Your task to perform on an android device: turn off location Image 0: 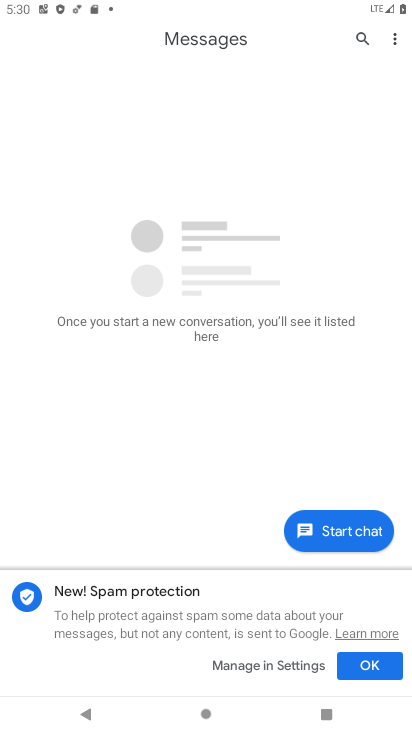
Step 0: press home button
Your task to perform on an android device: turn off location Image 1: 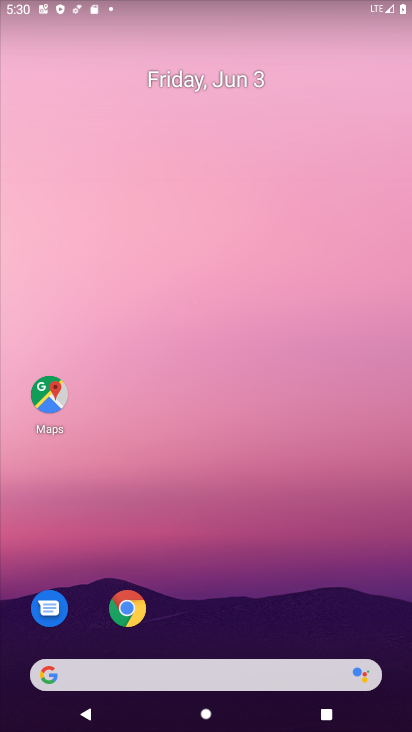
Step 1: drag from (243, 546) to (297, 3)
Your task to perform on an android device: turn off location Image 2: 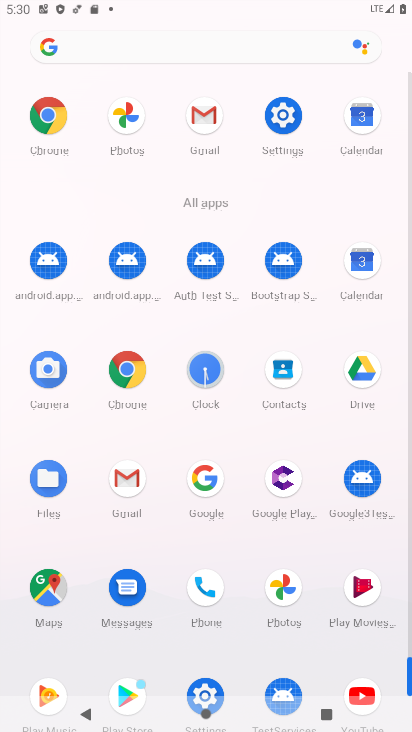
Step 2: click (280, 110)
Your task to perform on an android device: turn off location Image 3: 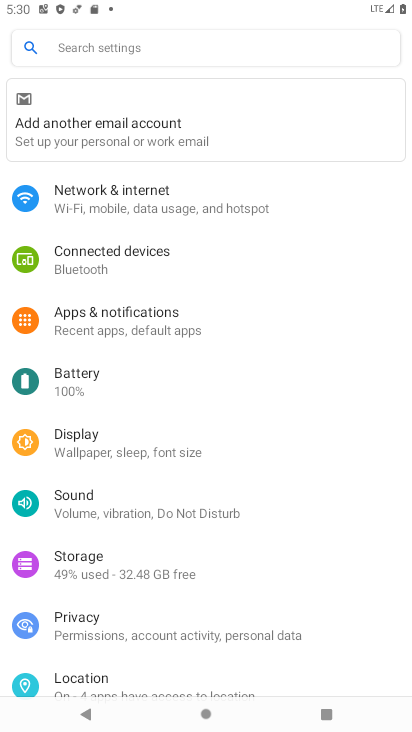
Step 3: drag from (111, 552) to (106, 258)
Your task to perform on an android device: turn off location Image 4: 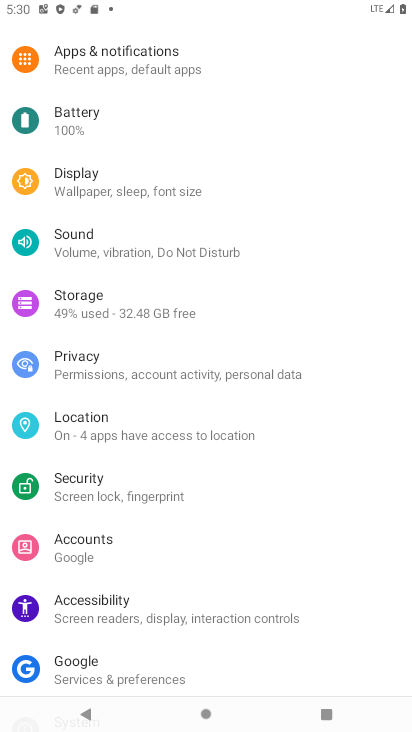
Step 4: click (91, 394)
Your task to perform on an android device: turn off location Image 5: 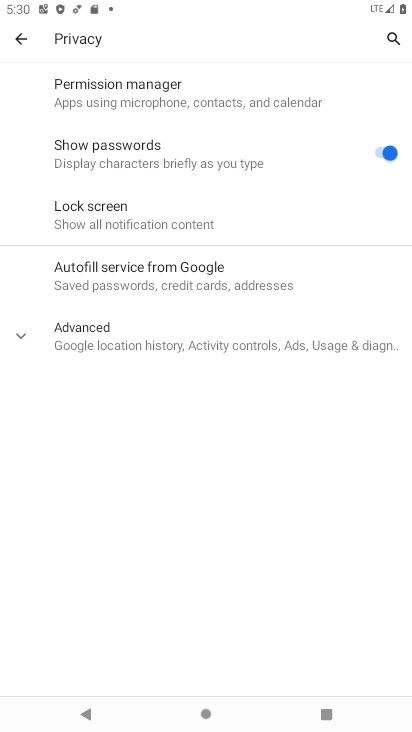
Step 5: press back button
Your task to perform on an android device: turn off location Image 6: 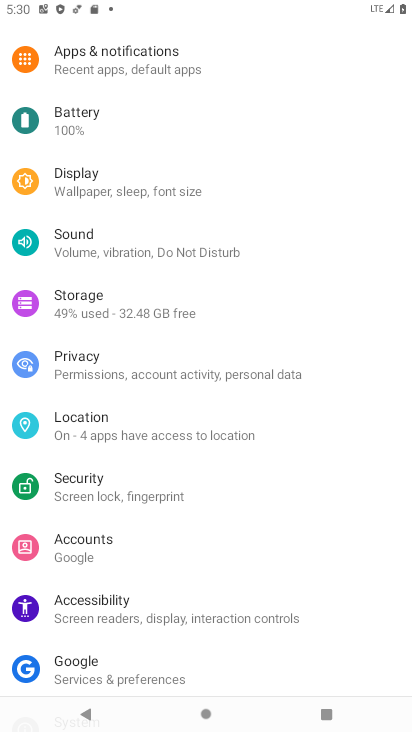
Step 6: click (246, 430)
Your task to perform on an android device: turn off location Image 7: 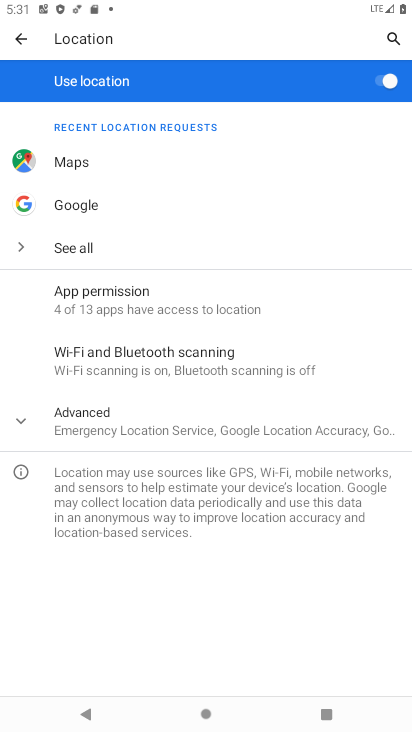
Step 7: click (393, 85)
Your task to perform on an android device: turn off location Image 8: 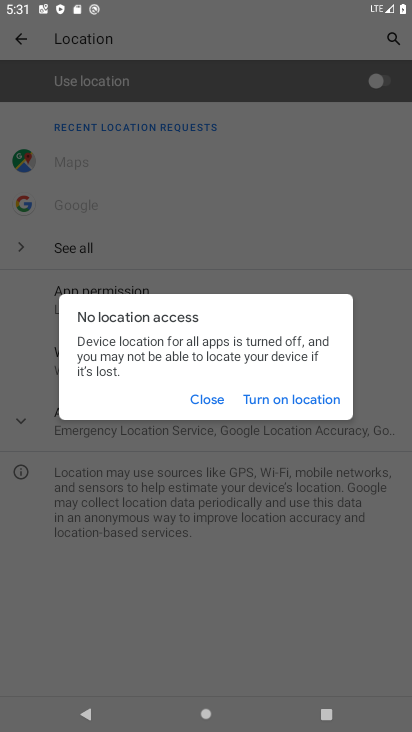
Step 8: task complete